Your task to perform on an android device: Go to location settings Image 0: 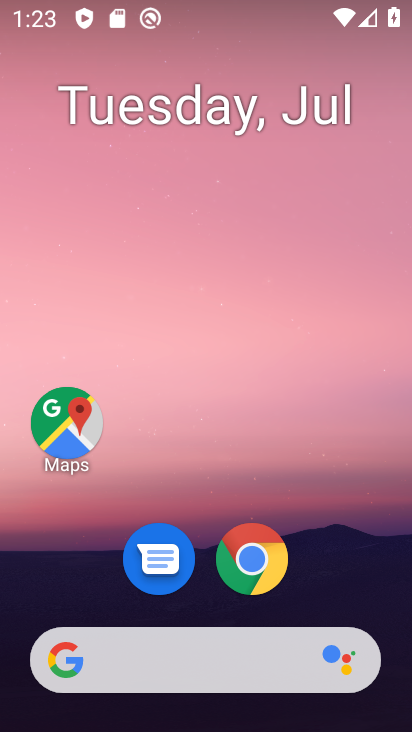
Step 0: drag from (340, 440) to (324, 124)
Your task to perform on an android device: Go to location settings Image 1: 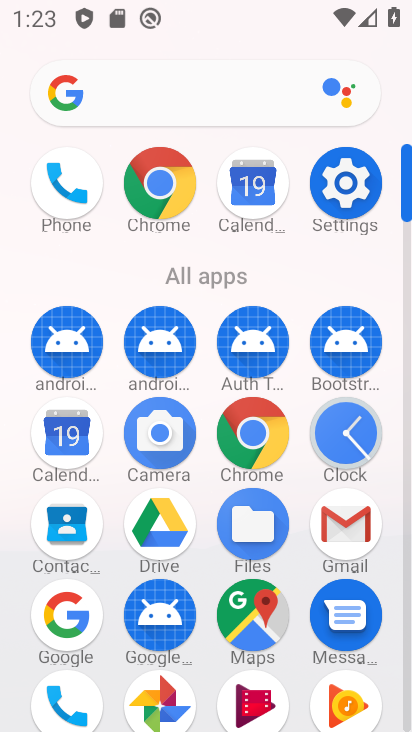
Step 1: click (343, 196)
Your task to perform on an android device: Go to location settings Image 2: 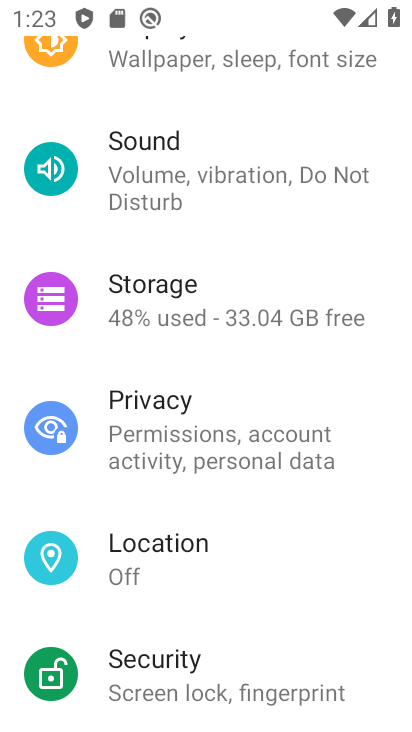
Step 2: drag from (354, 570) to (366, 463)
Your task to perform on an android device: Go to location settings Image 3: 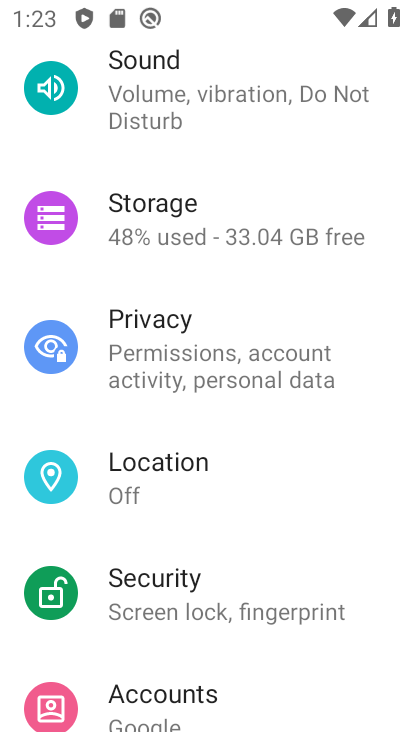
Step 3: drag from (362, 529) to (359, 419)
Your task to perform on an android device: Go to location settings Image 4: 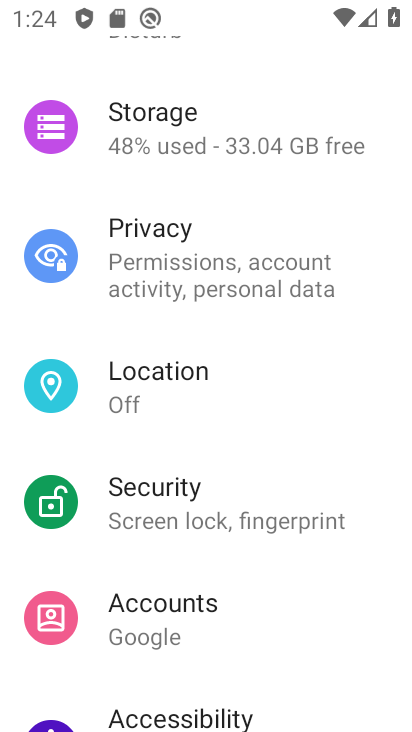
Step 4: drag from (355, 548) to (357, 443)
Your task to perform on an android device: Go to location settings Image 5: 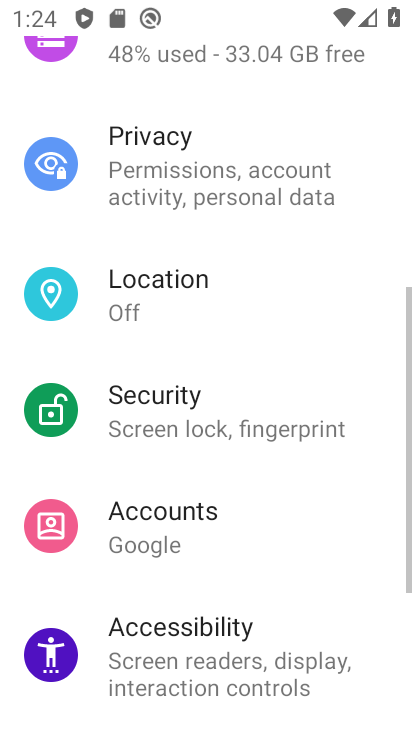
Step 5: drag from (371, 523) to (374, 484)
Your task to perform on an android device: Go to location settings Image 6: 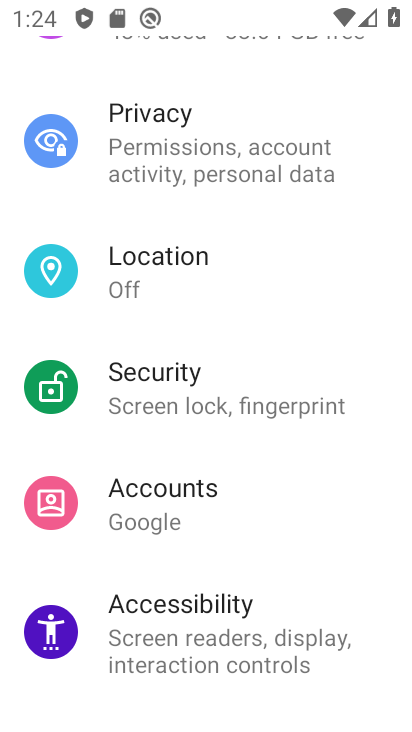
Step 6: drag from (371, 603) to (375, 516)
Your task to perform on an android device: Go to location settings Image 7: 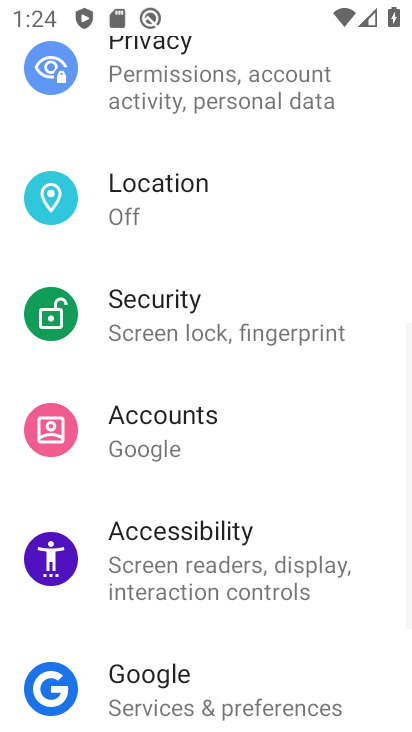
Step 7: drag from (371, 343) to (385, 378)
Your task to perform on an android device: Go to location settings Image 8: 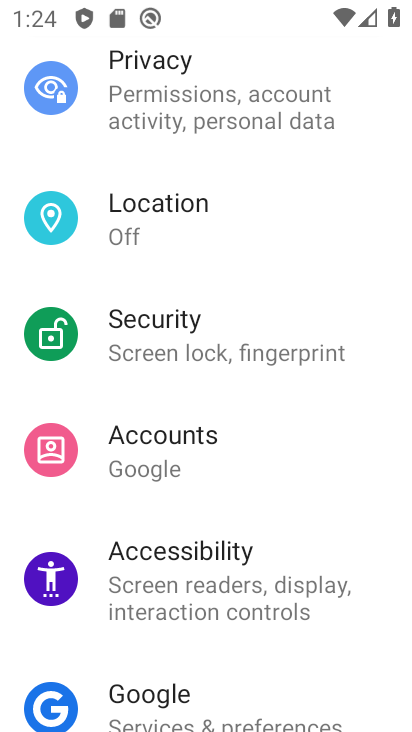
Step 8: click (211, 238)
Your task to perform on an android device: Go to location settings Image 9: 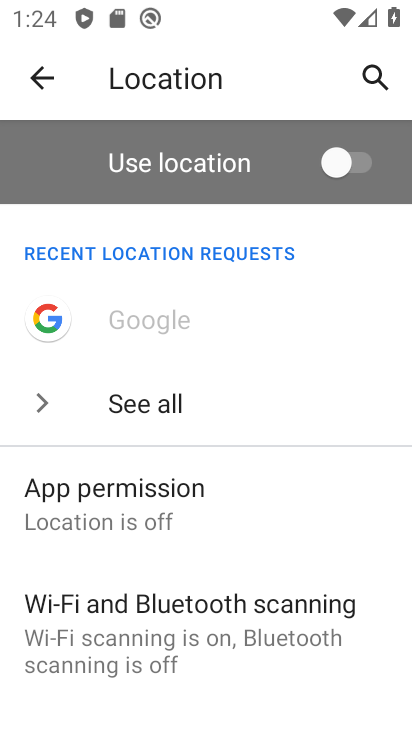
Step 9: task complete